Your task to perform on an android device: turn off data saver in the chrome app Image 0: 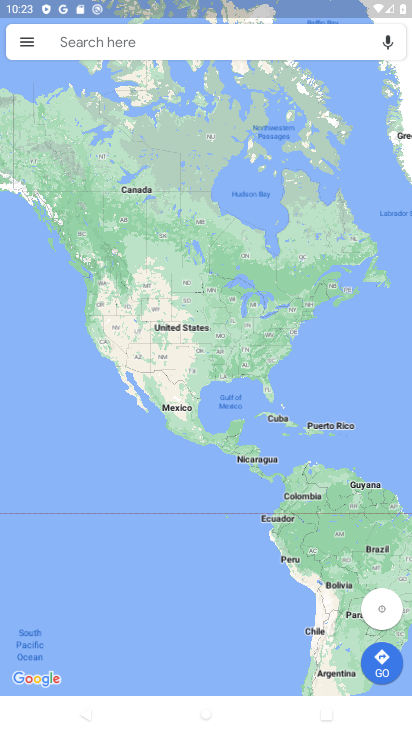
Step 0: press home button
Your task to perform on an android device: turn off data saver in the chrome app Image 1: 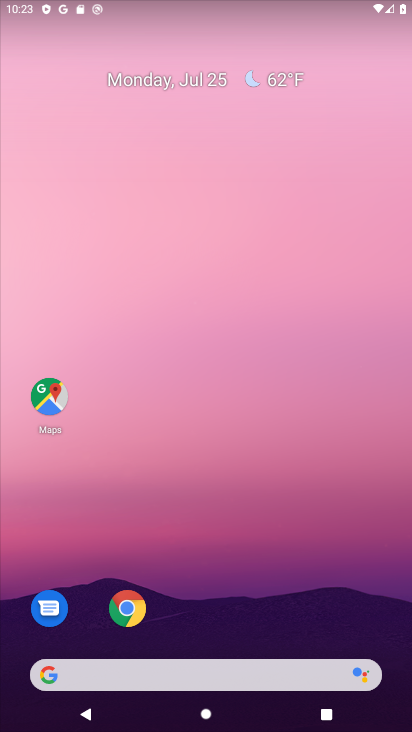
Step 1: drag from (208, 545) to (263, 160)
Your task to perform on an android device: turn off data saver in the chrome app Image 2: 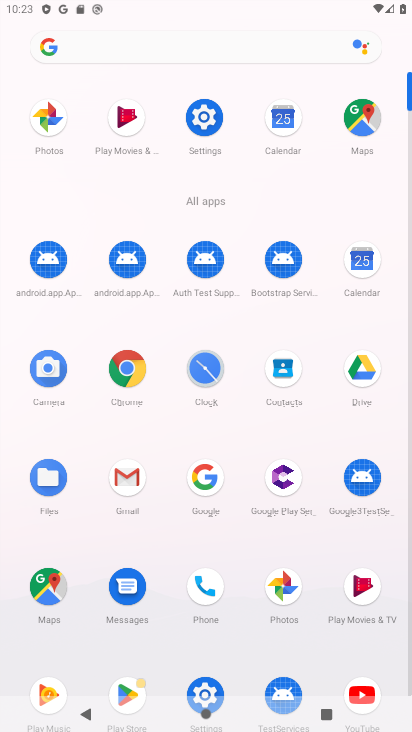
Step 2: click (124, 369)
Your task to perform on an android device: turn off data saver in the chrome app Image 3: 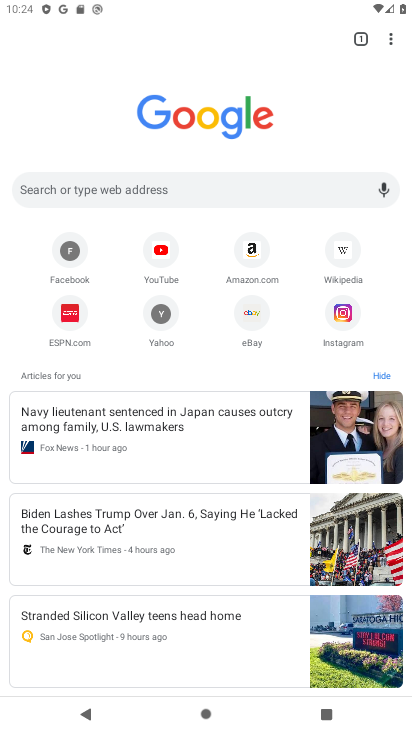
Step 3: click (392, 37)
Your task to perform on an android device: turn off data saver in the chrome app Image 4: 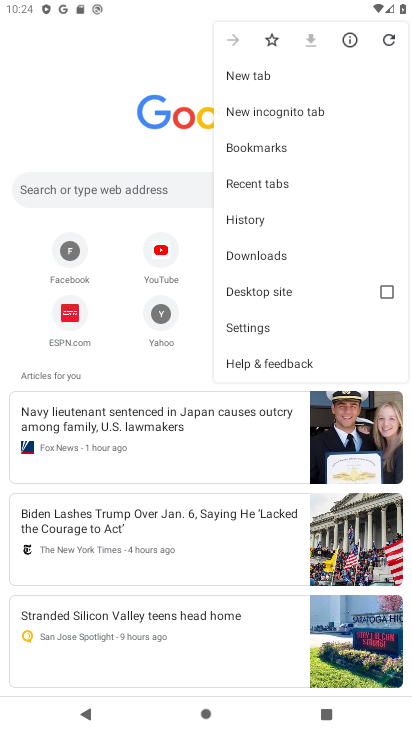
Step 4: click (246, 322)
Your task to perform on an android device: turn off data saver in the chrome app Image 5: 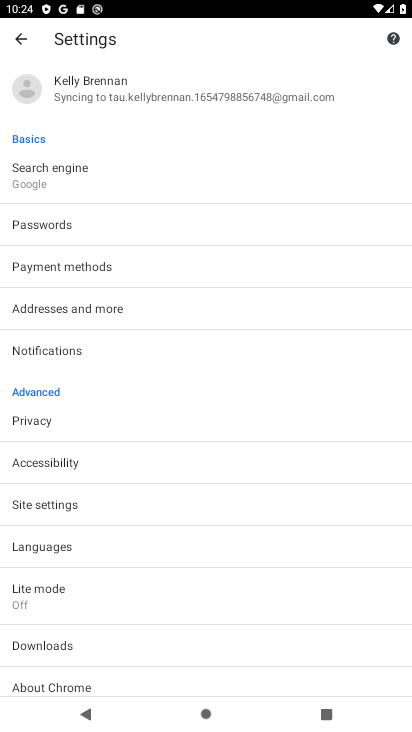
Step 5: task complete